Your task to perform on an android device: turn off notifications settings in the gmail app Image 0: 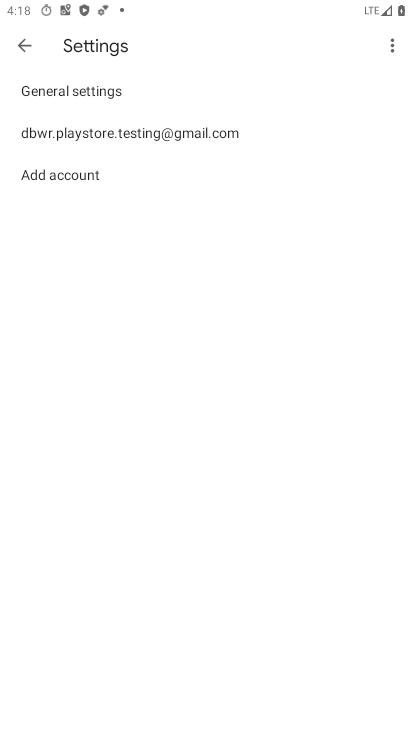
Step 0: press home button
Your task to perform on an android device: turn off notifications settings in the gmail app Image 1: 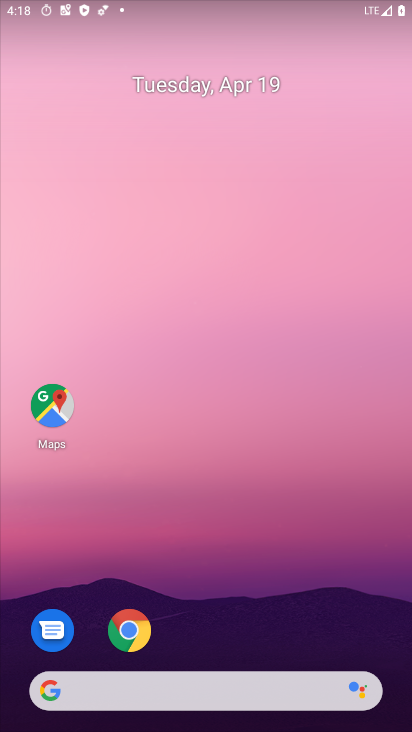
Step 1: drag from (230, 641) to (166, 210)
Your task to perform on an android device: turn off notifications settings in the gmail app Image 2: 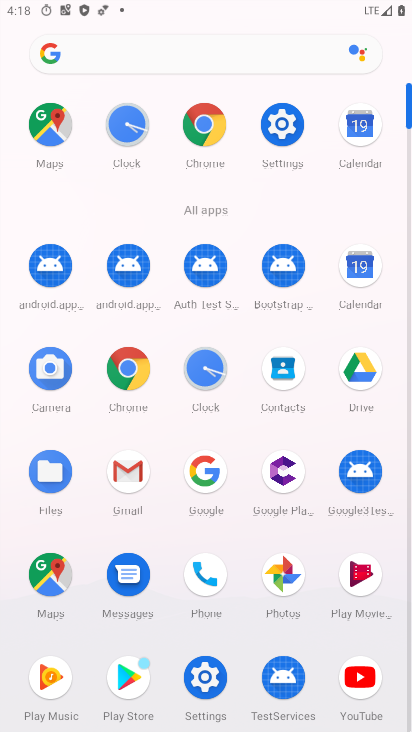
Step 2: drag from (229, 604) to (255, 413)
Your task to perform on an android device: turn off notifications settings in the gmail app Image 3: 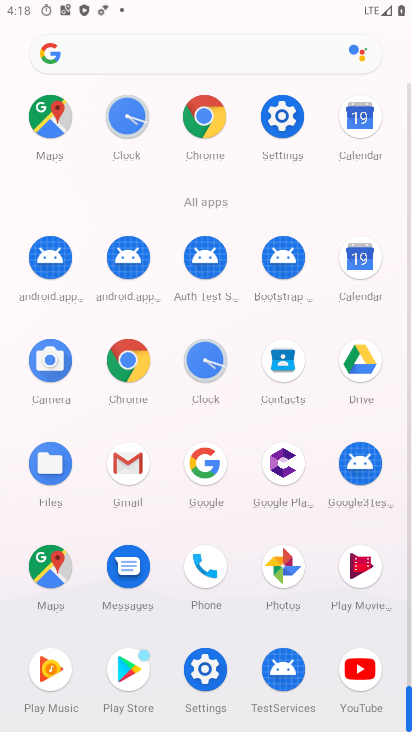
Step 3: click (133, 449)
Your task to perform on an android device: turn off notifications settings in the gmail app Image 4: 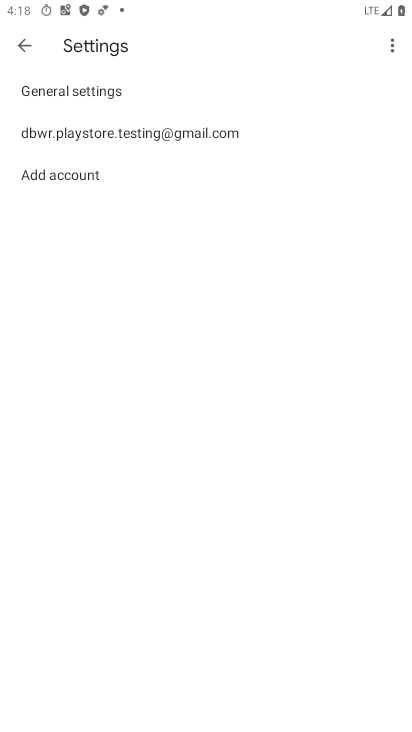
Step 4: click (221, 134)
Your task to perform on an android device: turn off notifications settings in the gmail app Image 5: 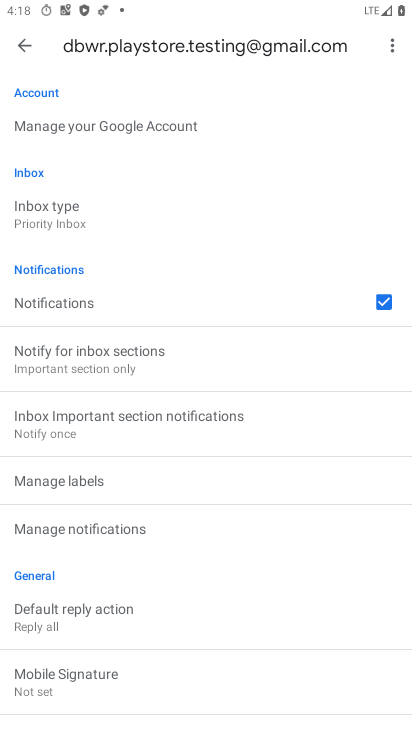
Step 5: click (144, 532)
Your task to perform on an android device: turn off notifications settings in the gmail app Image 6: 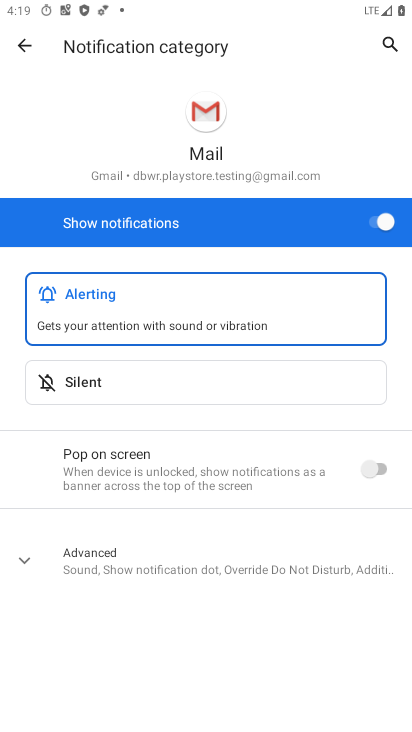
Step 6: click (369, 213)
Your task to perform on an android device: turn off notifications settings in the gmail app Image 7: 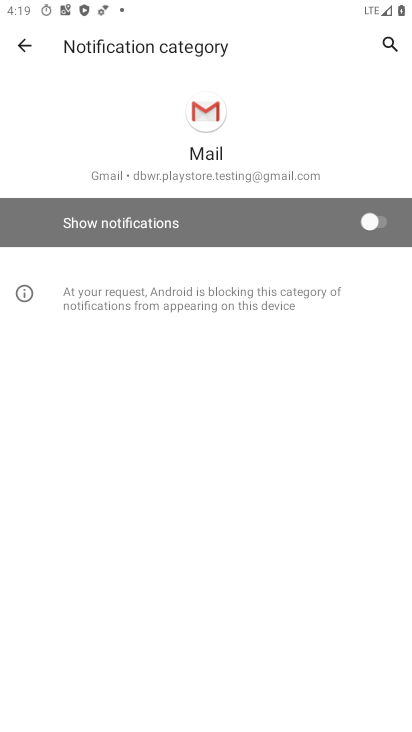
Step 7: task complete